Your task to perform on an android device: Go to settings Image 0: 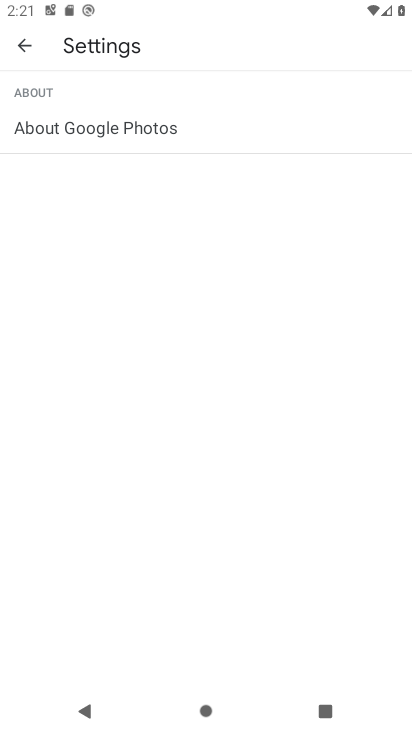
Step 0: press home button
Your task to perform on an android device: Go to settings Image 1: 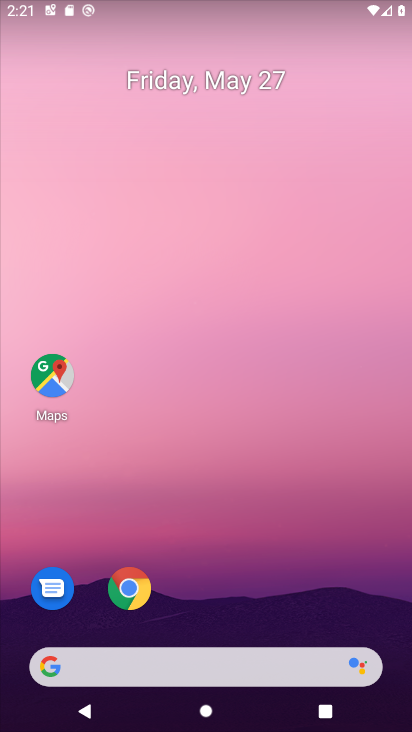
Step 1: drag from (206, 614) to (174, 0)
Your task to perform on an android device: Go to settings Image 2: 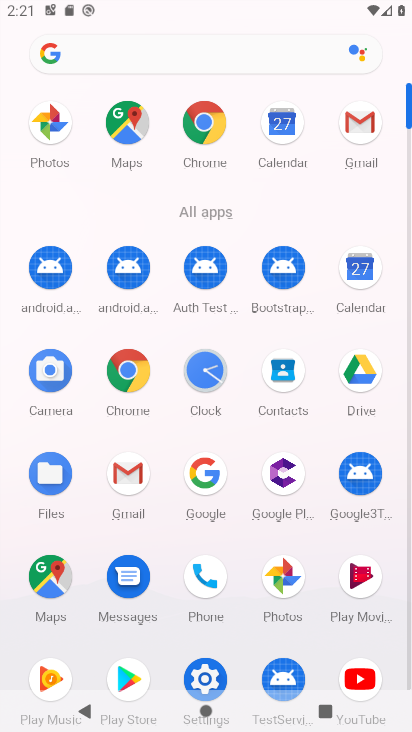
Step 2: click (197, 682)
Your task to perform on an android device: Go to settings Image 3: 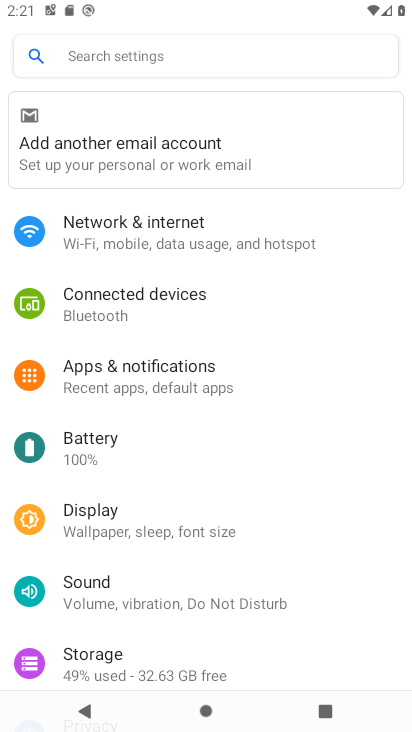
Step 3: task complete